Your task to perform on an android device: see creations saved in the google photos Image 0: 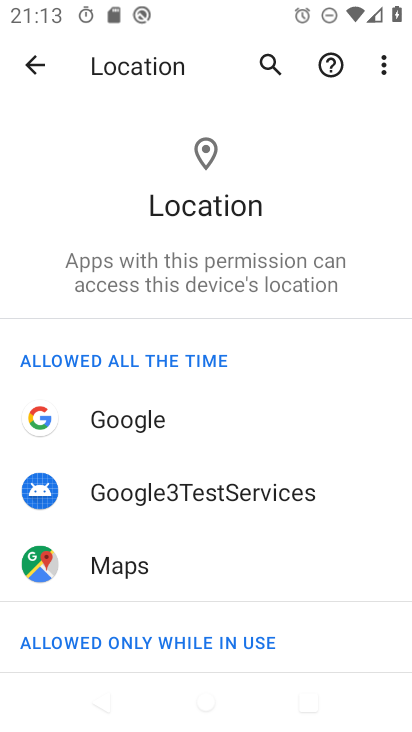
Step 0: click (370, 366)
Your task to perform on an android device: see creations saved in the google photos Image 1: 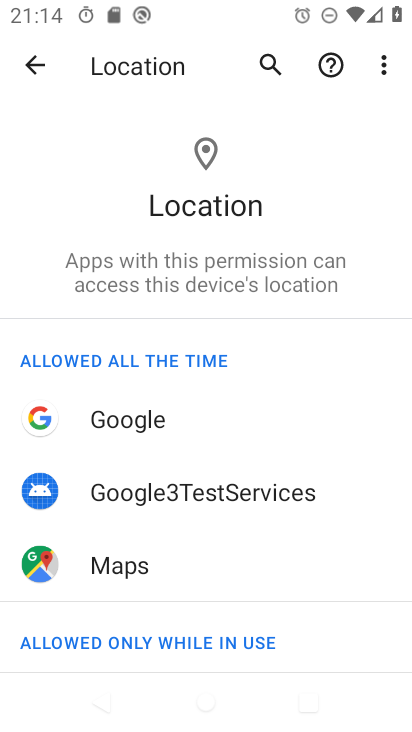
Step 1: click (336, 354)
Your task to perform on an android device: see creations saved in the google photos Image 2: 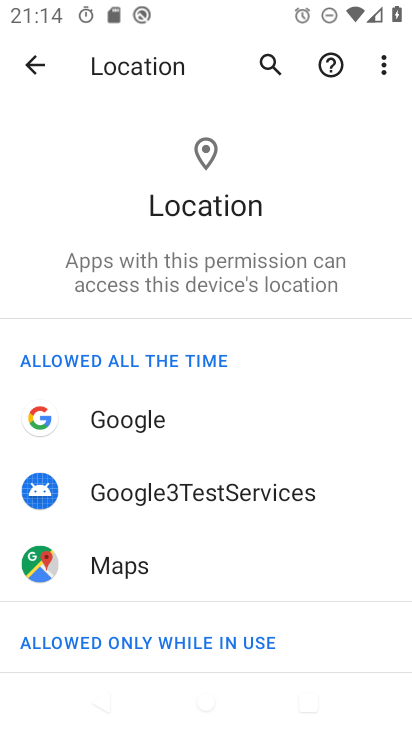
Step 2: press back button
Your task to perform on an android device: see creations saved in the google photos Image 3: 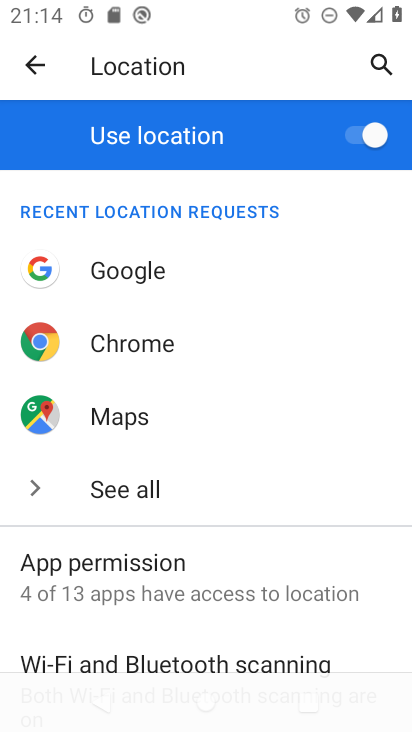
Step 3: press home button
Your task to perform on an android device: see creations saved in the google photos Image 4: 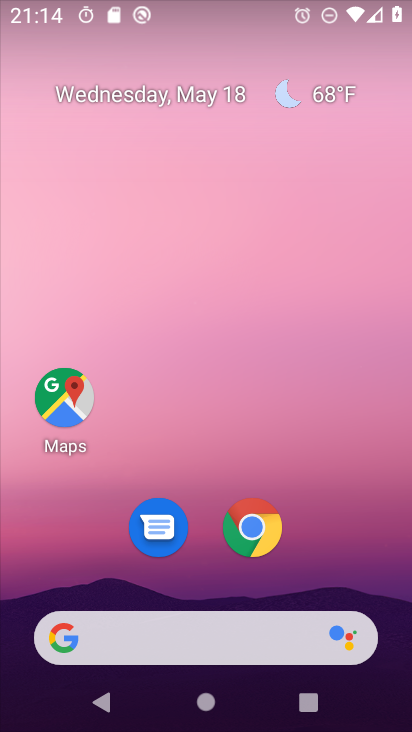
Step 4: drag from (392, 663) to (355, 174)
Your task to perform on an android device: see creations saved in the google photos Image 5: 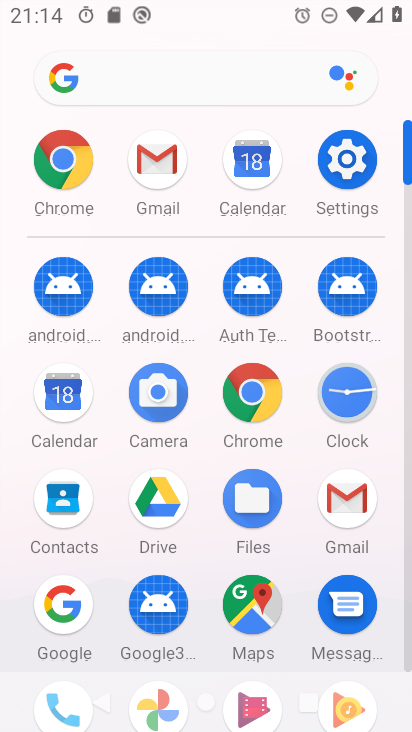
Step 5: drag from (408, 119) to (402, 73)
Your task to perform on an android device: see creations saved in the google photos Image 6: 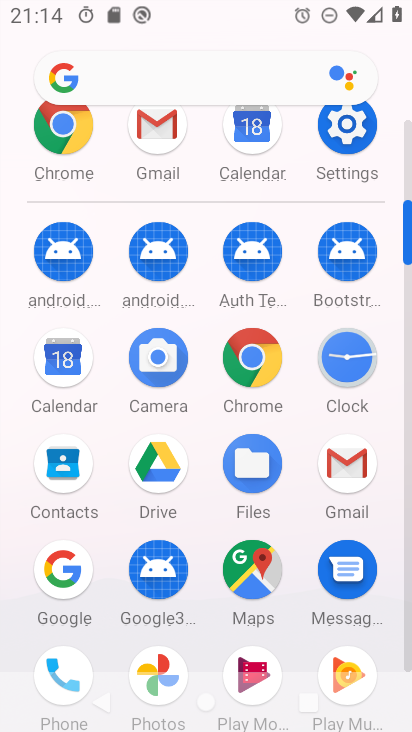
Step 6: click (156, 655)
Your task to perform on an android device: see creations saved in the google photos Image 7: 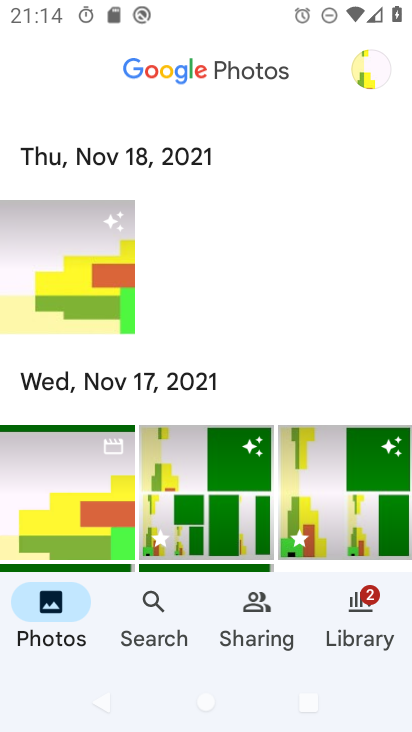
Step 7: click (26, 257)
Your task to perform on an android device: see creations saved in the google photos Image 8: 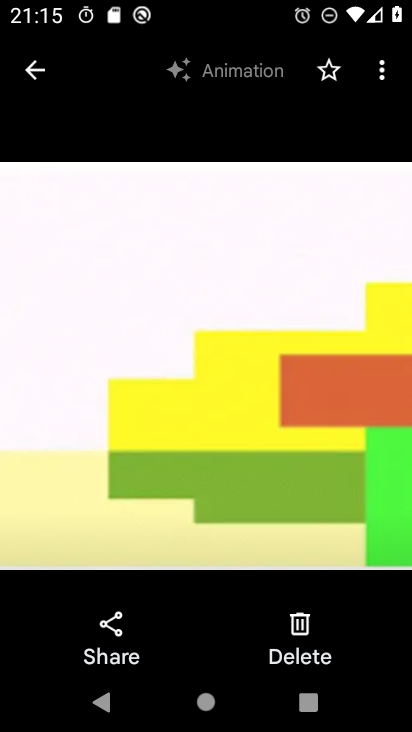
Step 8: task complete